Your task to perform on an android device: Go to Android settings Image 0: 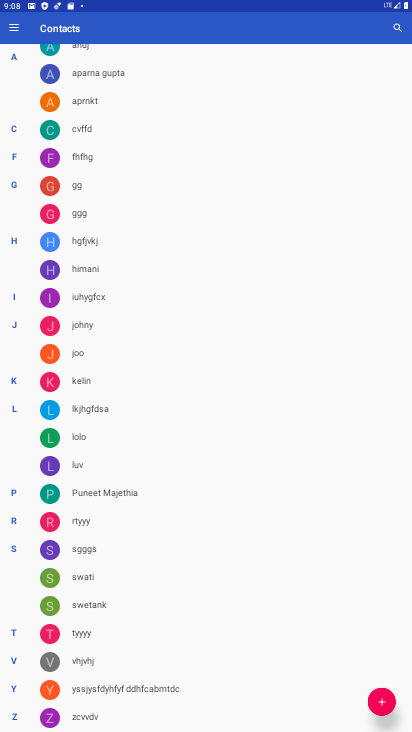
Step 0: press home button
Your task to perform on an android device: Go to Android settings Image 1: 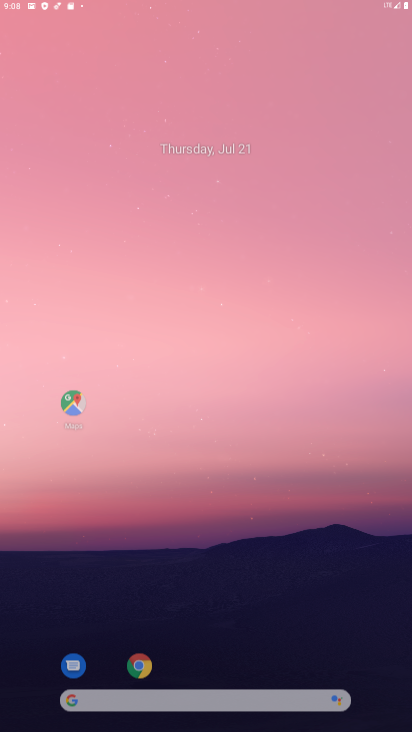
Step 1: drag from (211, 643) to (254, 310)
Your task to perform on an android device: Go to Android settings Image 2: 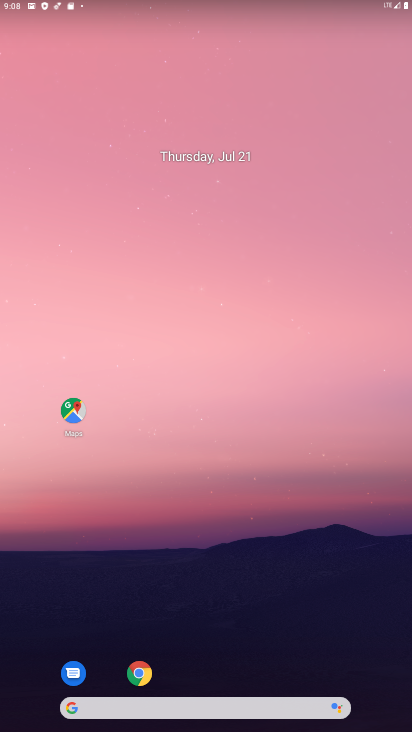
Step 2: drag from (199, 626) to (383, 43)
Your task to perform on an android device: Go to Android settings Image 3: 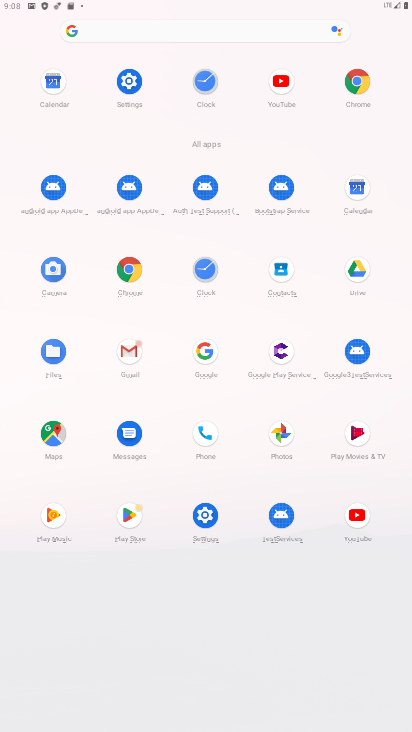
Step 3: click (202, 507)
Your task to perform on an android device: Go to Android settings Image 4: 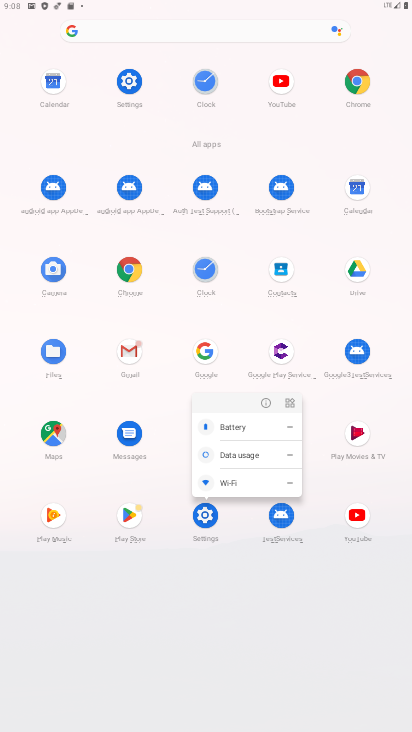
Step 4: click (268, 400)
Your task to perform on an android device: Go to Android settings Image 5: 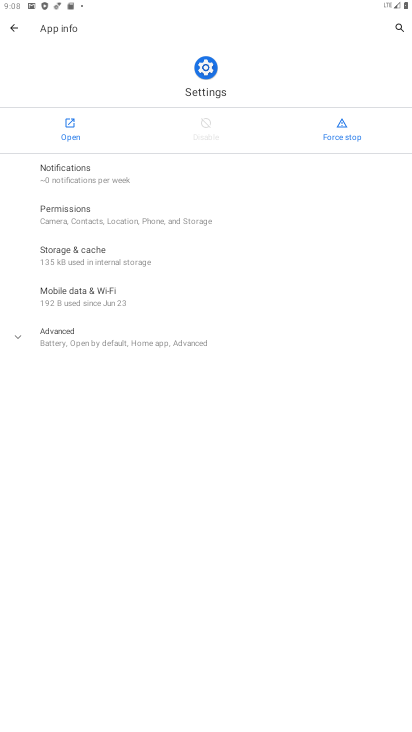
Step 5: click (71, 126)
Your task to perform on an android device: Go to Android settings Image 6: 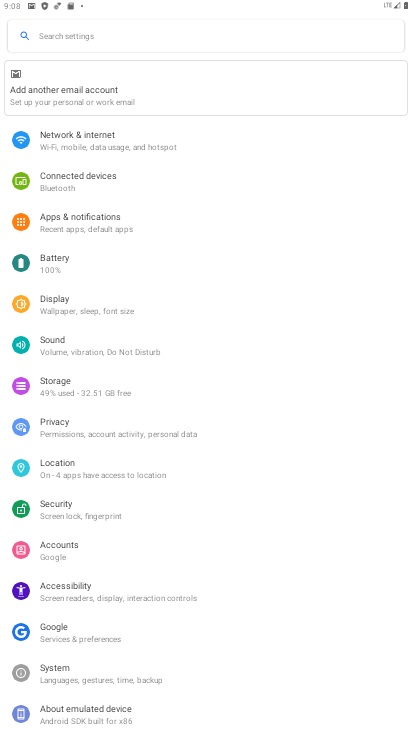
Step 6: click (86, 711)
Your task to perform on an android device: Go to Android settings Image 7: 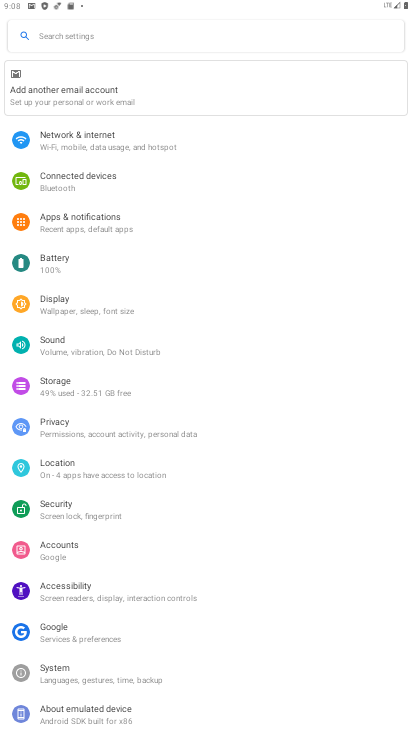
Step 7: click (86, 711)
Your task to perform on an android device: Go to Android settings Image 8: 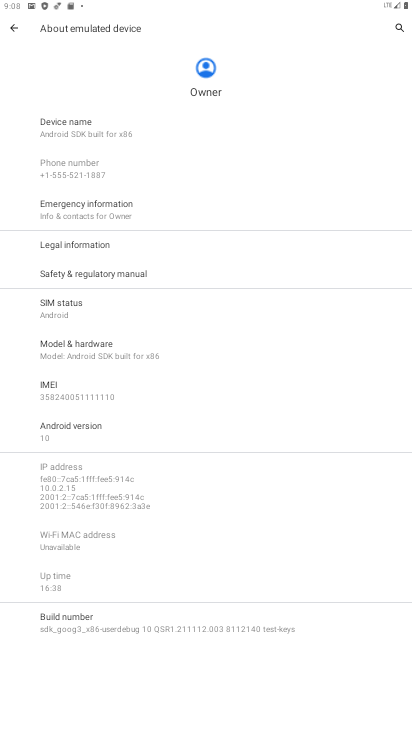
Step 8: click (88, 428)
Your task to perform on an android device: Go to Android settings Image 9: 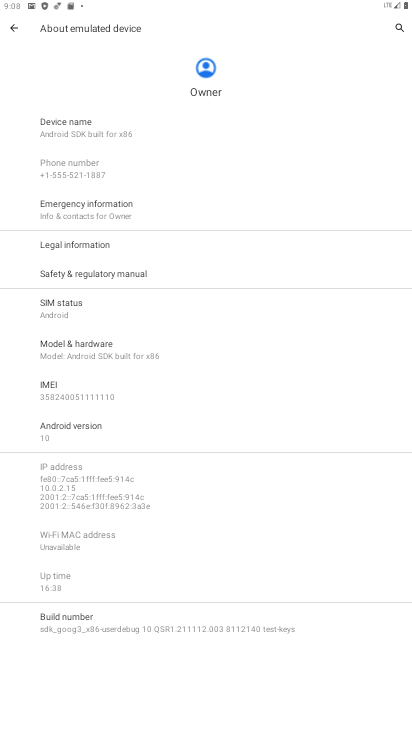
Step 9: click (88, 428)
Your task to perform on an android device: Go to Android settings Image 10: 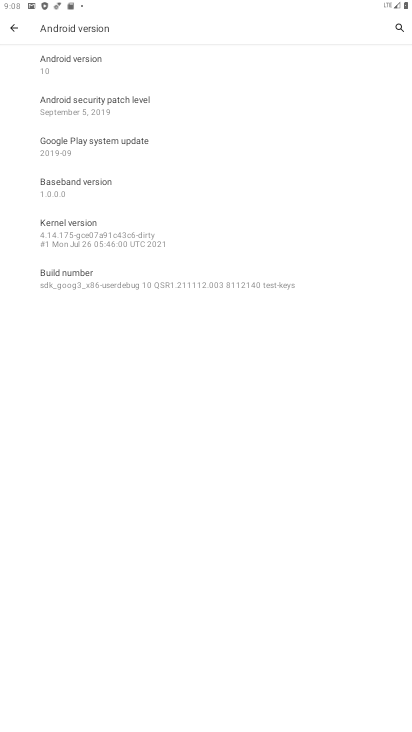
Step 10: click (80, 59)
Your task to perform on an android device: Go to Android settings Image 11: 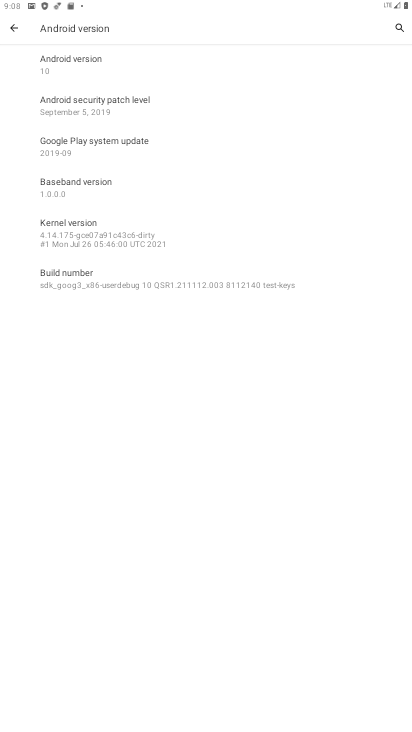
Step 11: task complete